Your task to perform on an android device: open app "Adobe Acrobat Reader" Image 0: 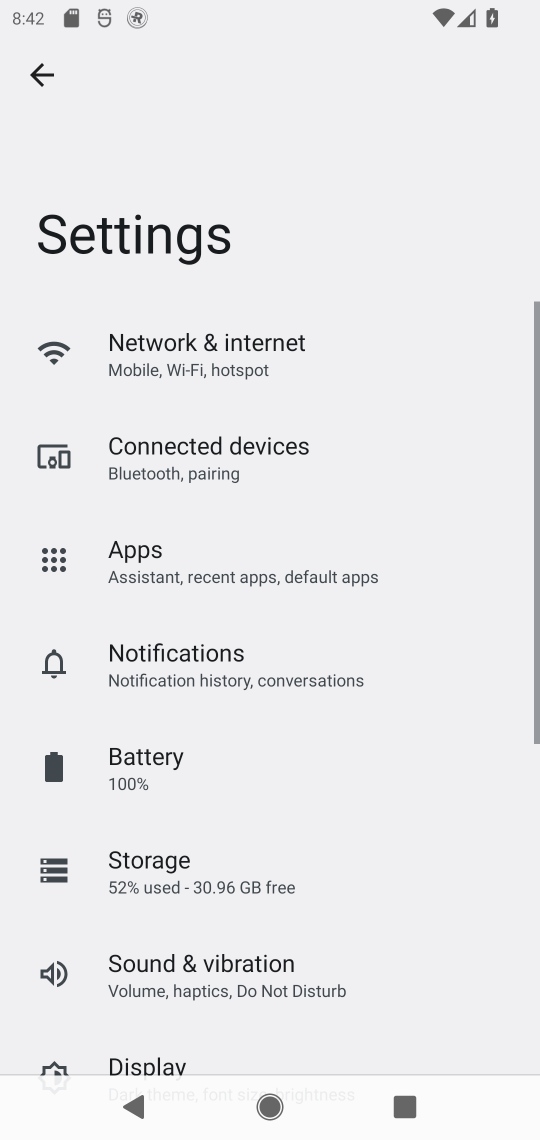
Step 0: press home button
Your task to perform on an android device: open app "Adobe Acrobat Reader" Image 1: 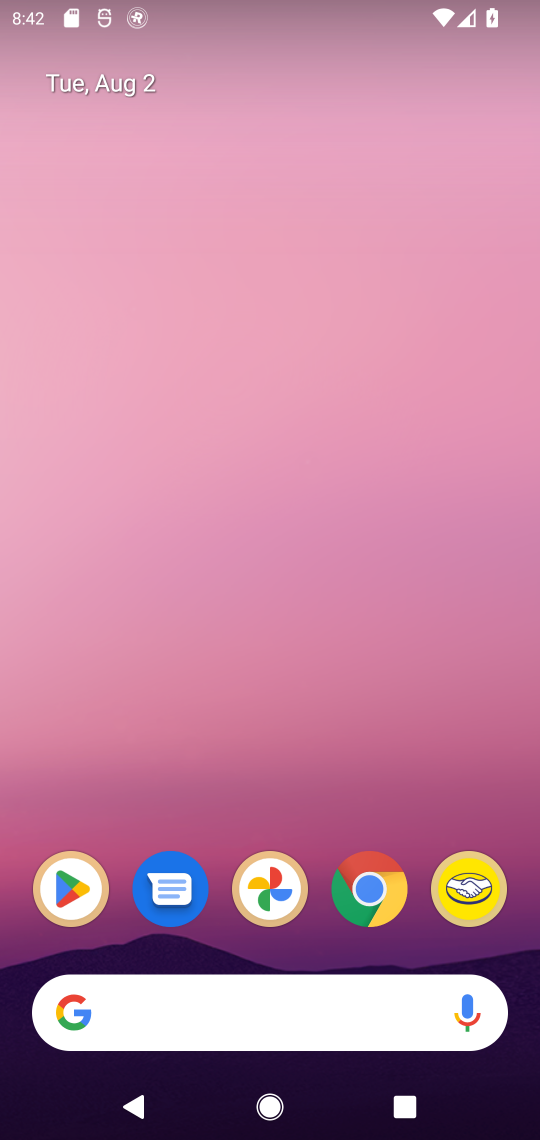
Step 1: click (50, 885)
Your task to perform on an android device: open app "Adobe Acrobat Reader" Image 2: 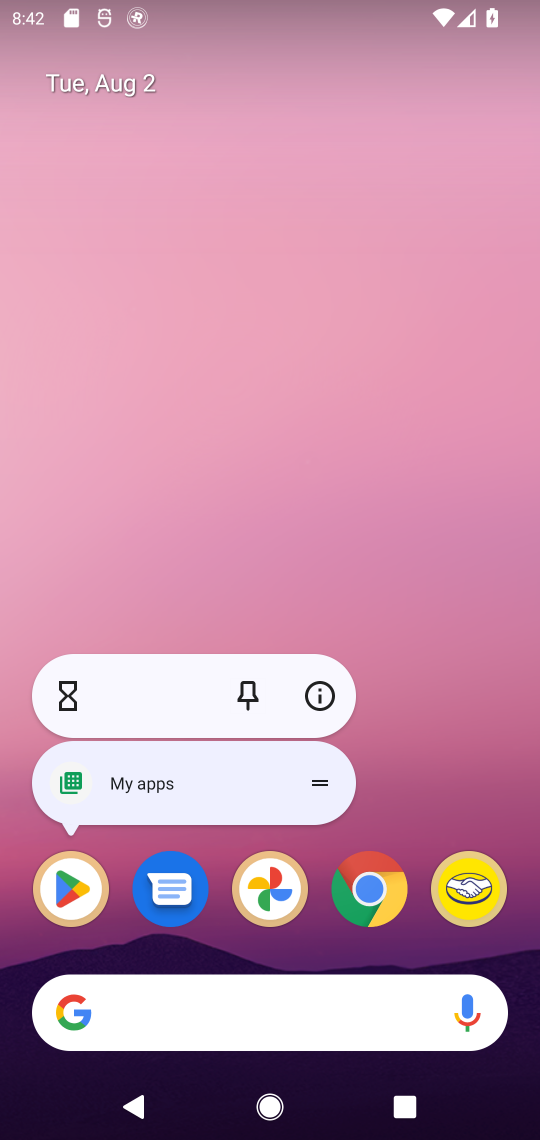
Step 2: click (65, 887)
Your task to perform on an android device: open app "Adobe Acrobat Reader" Image 3: 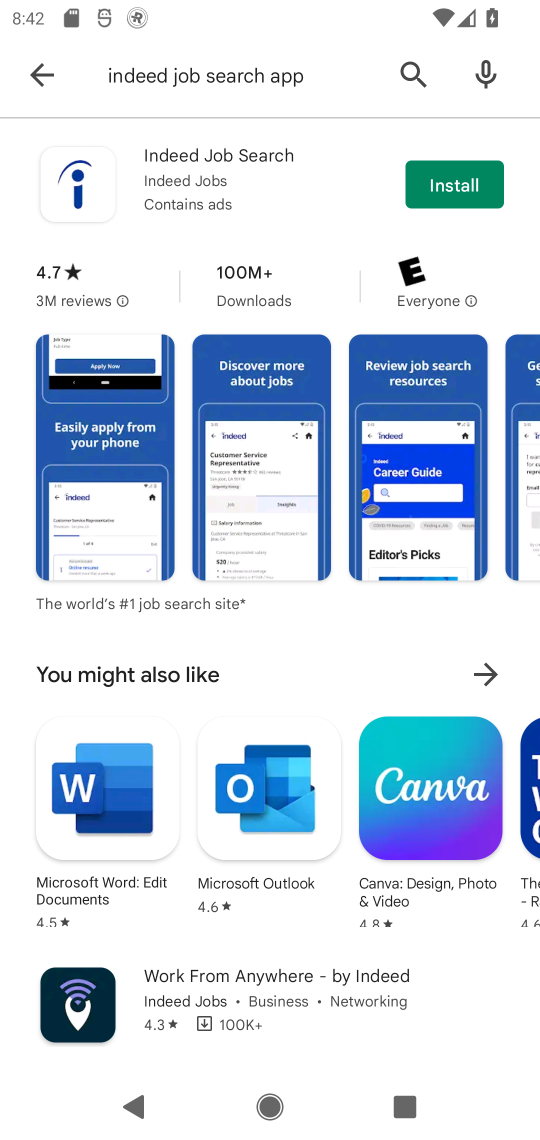
Step 3: click (412, 61)
Your task to perform on an android device: open app "Adobe Acrobat Reader" Image 4: 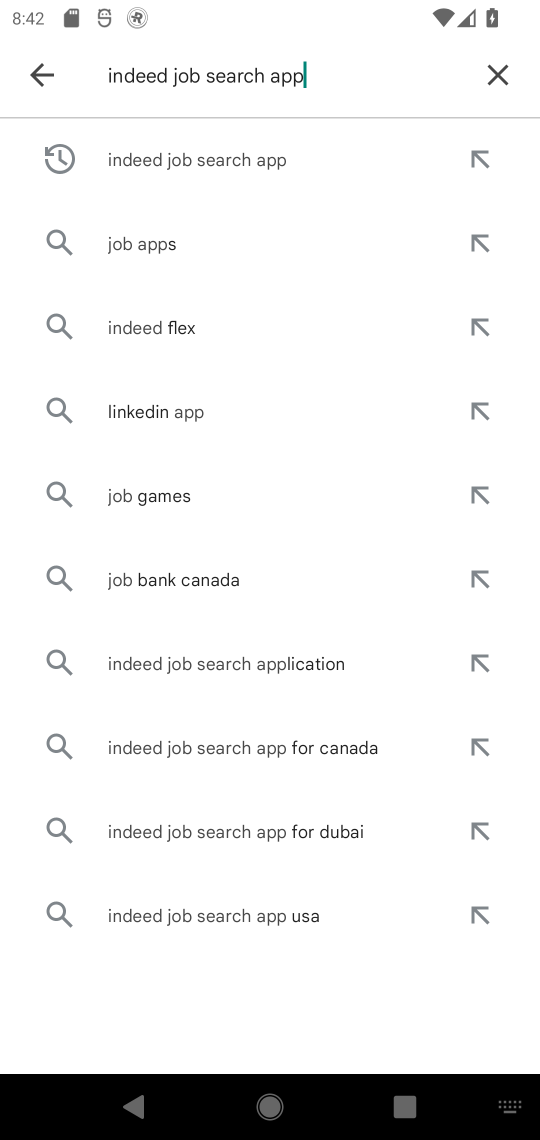
Step 4: click (507, 73)
Your task to perform on an android device: open app "Adobe Acrobat Reader" Image 5: 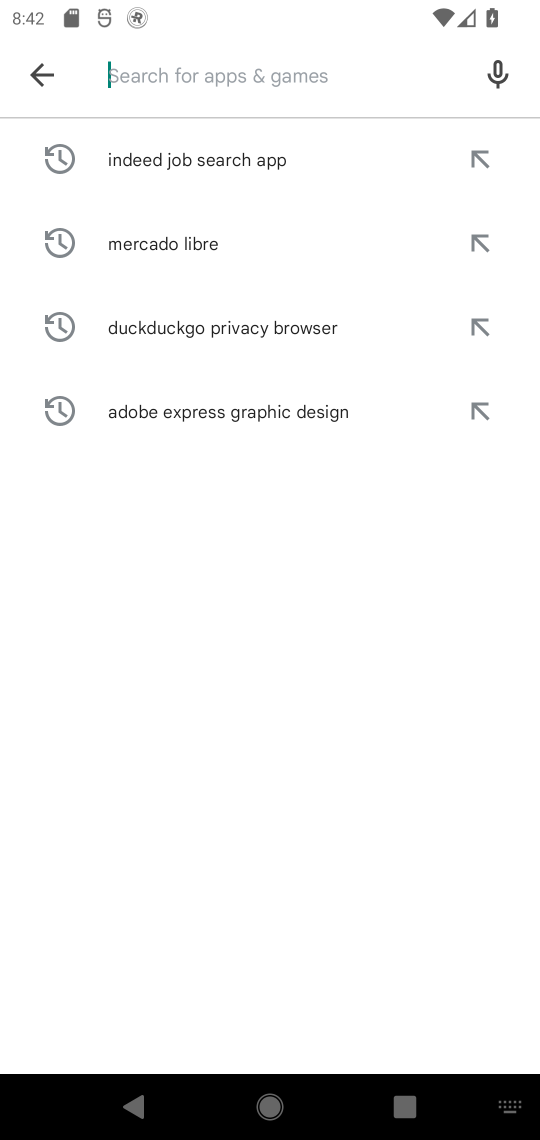
Step 5: type "Adobe Acrobat Reader"
Your task to perform on an android device: open app "Adobe Acrobat Reader" Image 6: 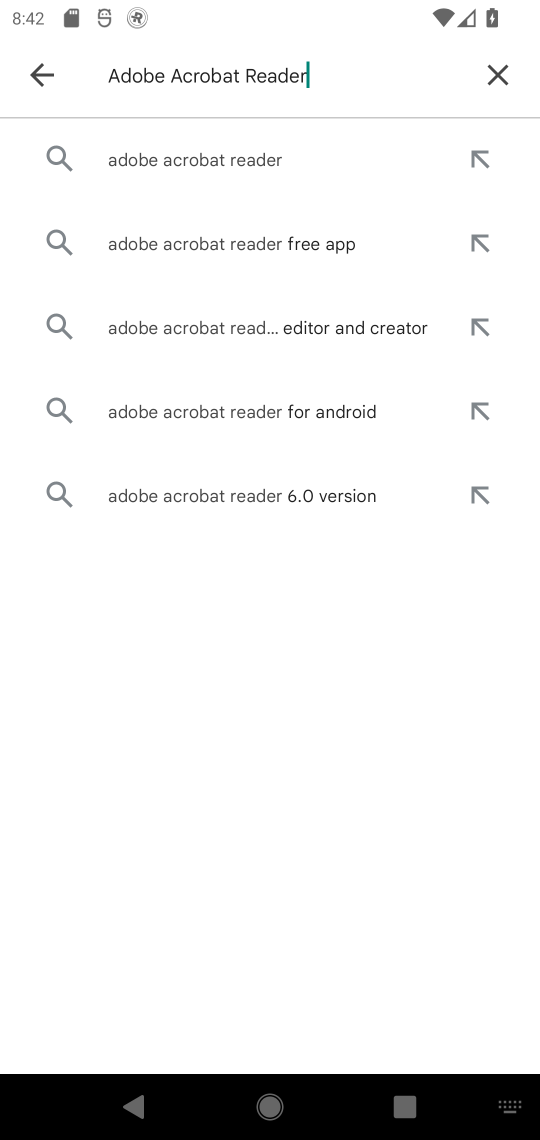
Step 6: click (247, 162)
Your task to perform on an android device: open app "Adobe Acrobat Reader" Image 7: 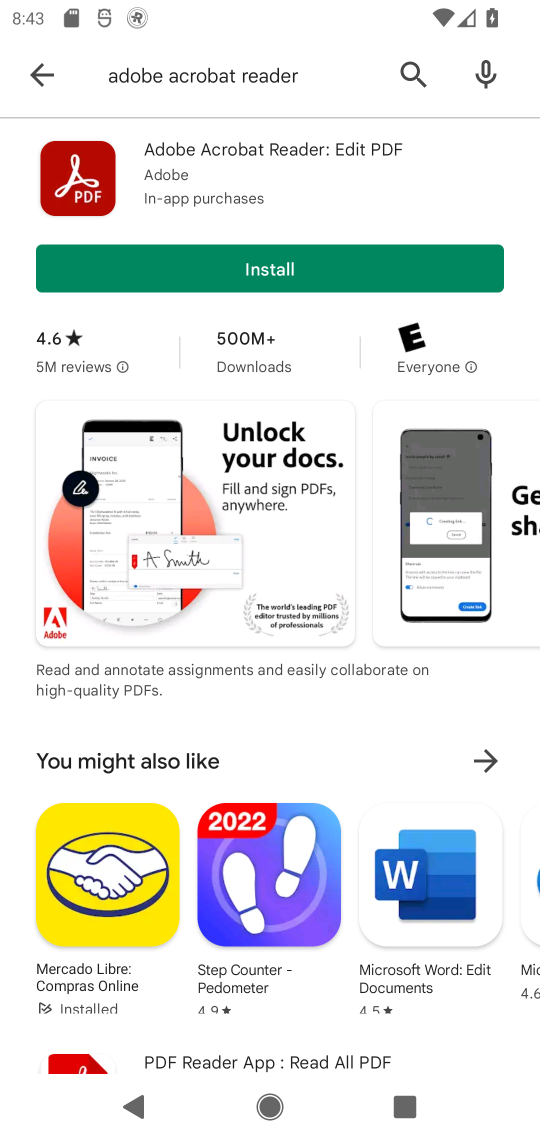
Step 7: task complete